Your task to perform on an android device: Clear the shopping cart on newegg. Add duracell triple a to the cart on newegg Image 0: 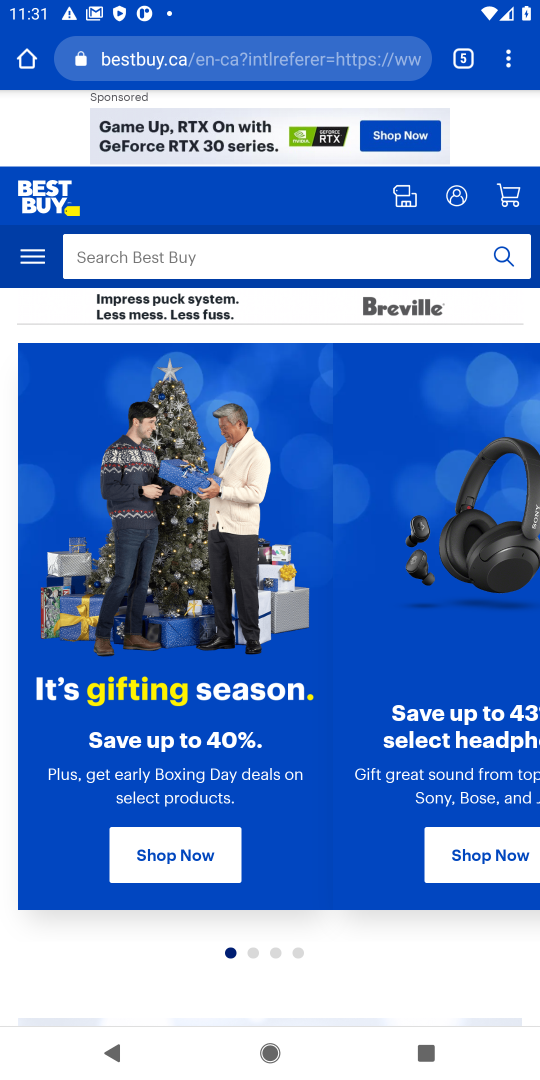
Step 0: press home button
Your task to perform on an android device: Clear the shopping cart on newegg. Add duracell triple a to the cart on newegg Image 1: 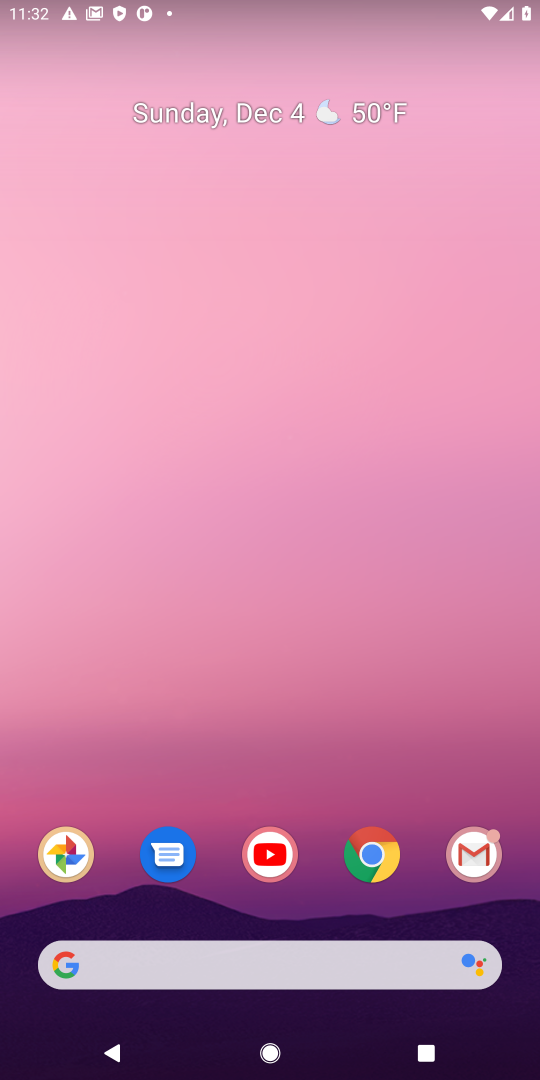
Step 1: click (355, 967)
Your task to perform on an android device: Clear the shopping cart on newegg. Add duracell triple a to the cart on newegg Image 2: 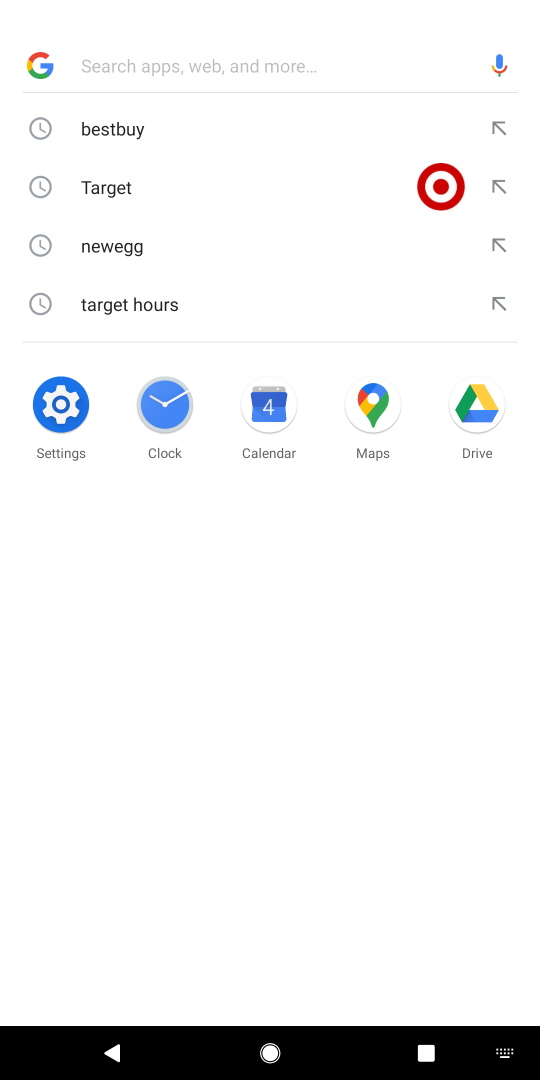
Step 2: type "newegg"
Your task to perform on an android device: Clear the shopping cart on newegg. Add duracell triple a to the cart on newegg Image 3: 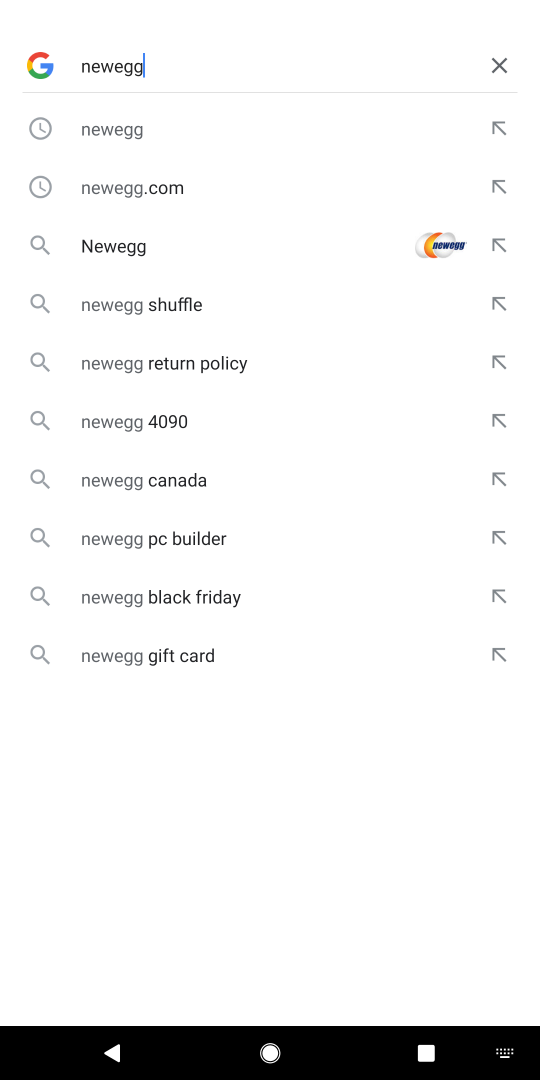
Step 3: click (144, 140)
Your task to perform on an android device: Clear the shopping cart on newegg. Add duracell triple a to the cart on newegg Image 4: 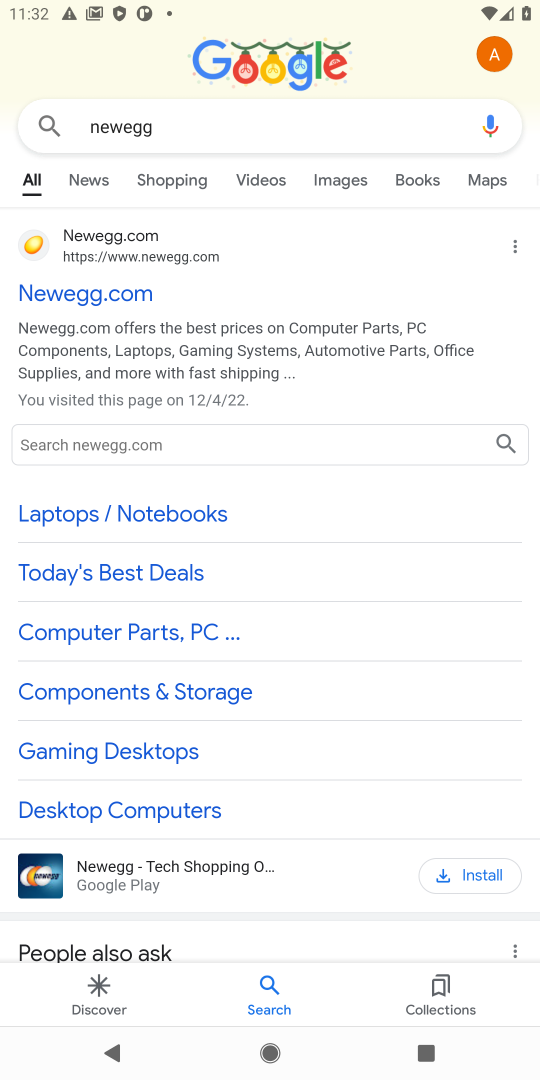
Step 4: click (89, 315)
Your task to perform on an android device: Clear the shopping cart on newegg. Add duracell triple a to the cart on newegg Image 5: 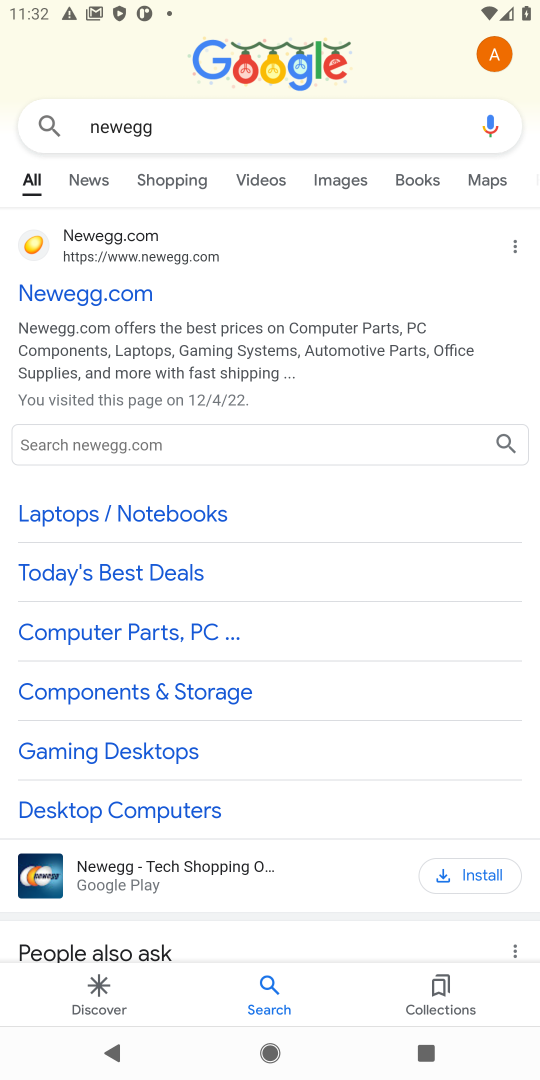
Step 5: task complete